Your task to perform on an android device: turn on showing notifications on the lock screen Image 0: 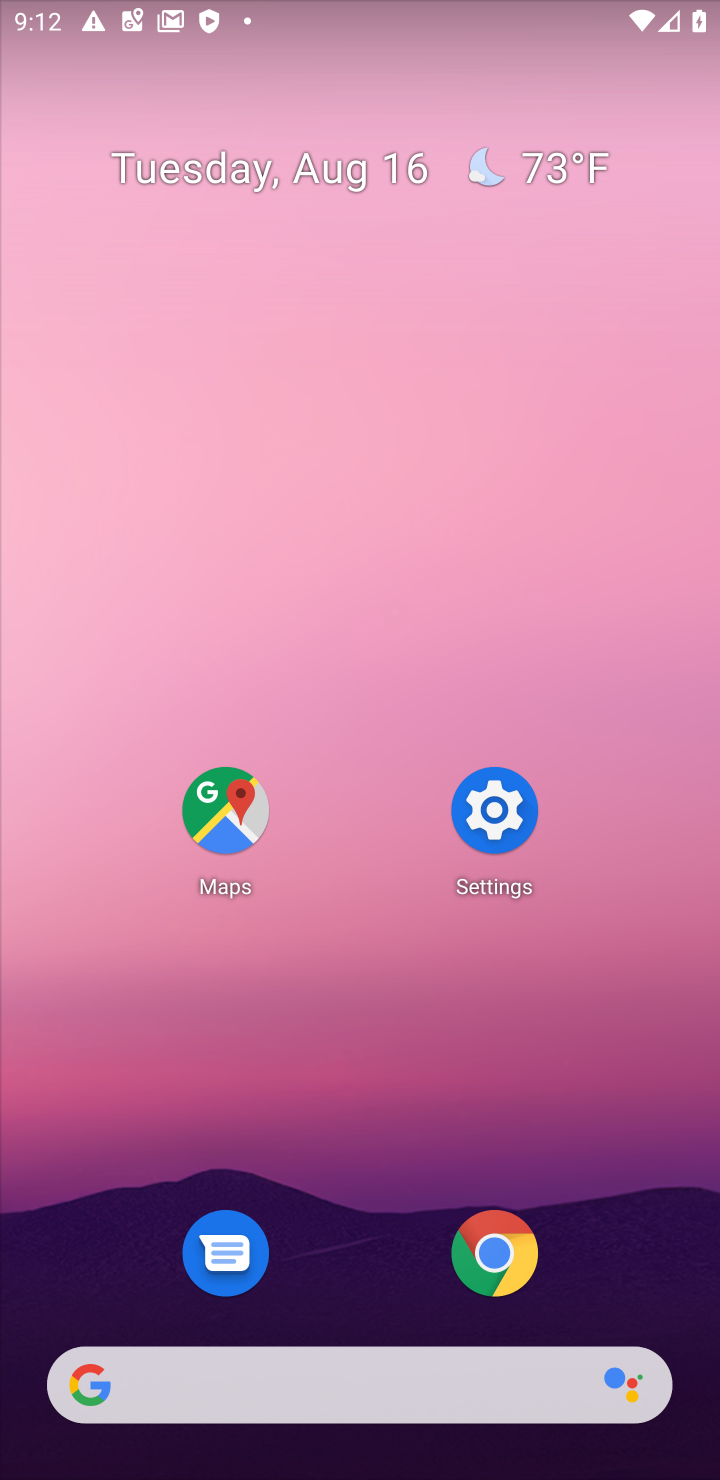
Step 0: click (484, 786)
Your task to perform on an android device: turn on showing notifications on the lock screen Image 1: 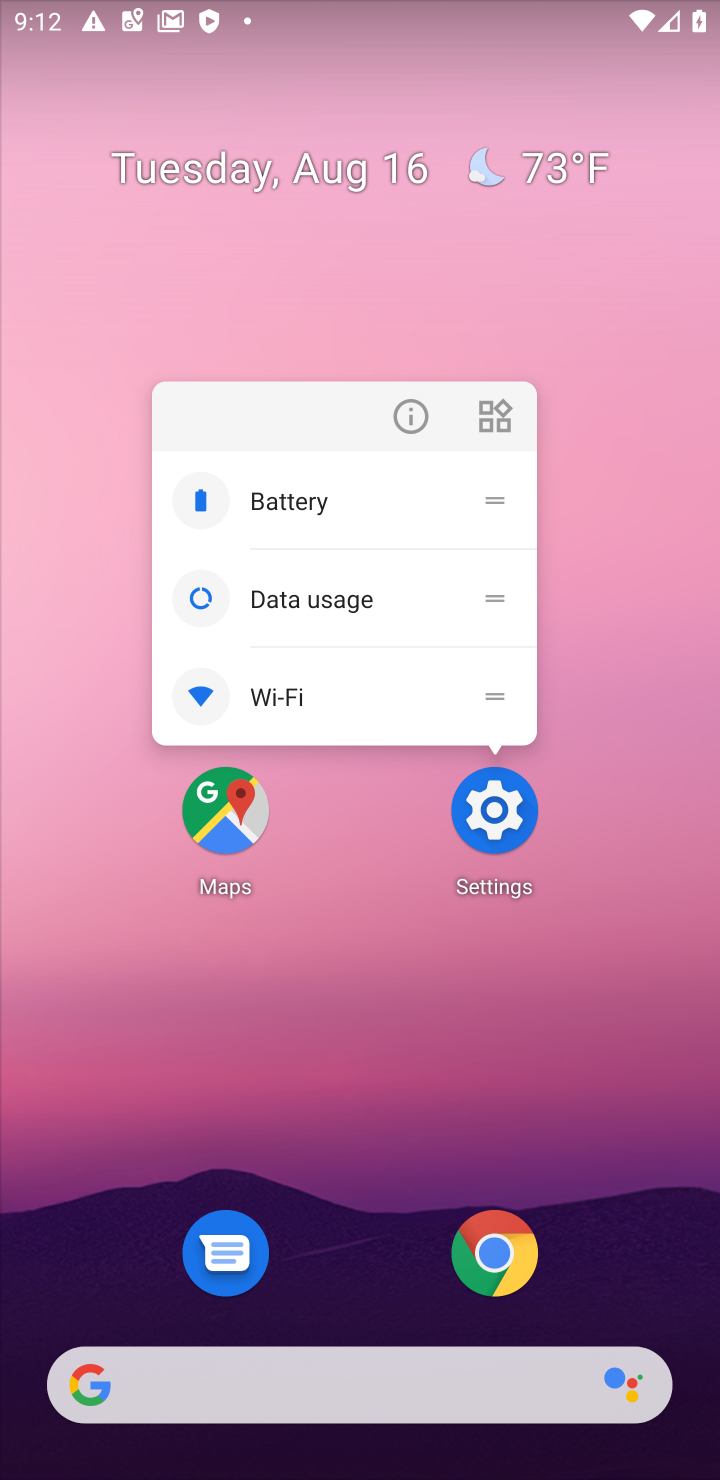
Step 1: click (496, 808)
Your task to perform on an android device: turn on showing notifications on the lock screen Image 2: 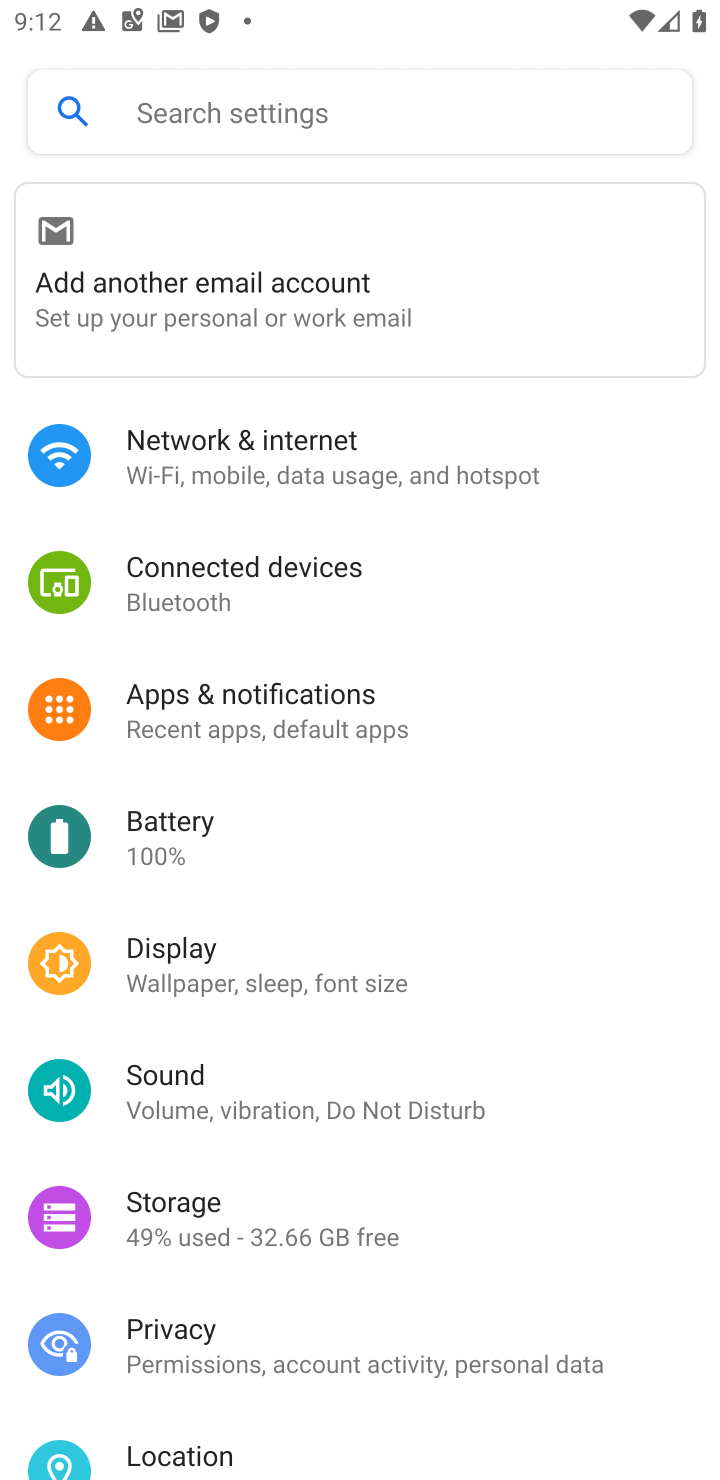
Step 2: click (259, 711)
Your task to perform on an android device: turn on showing notifications on the lock screen Image 3: 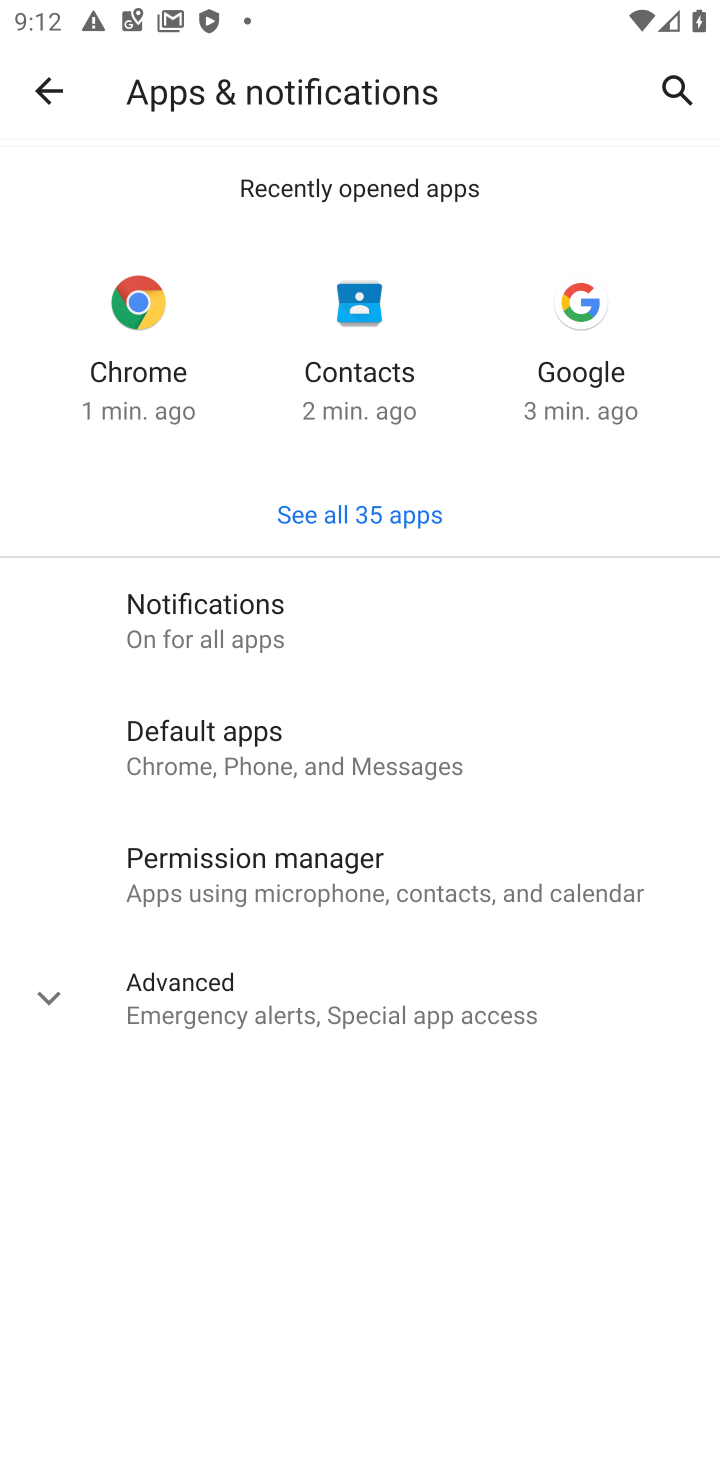
Step 3: click (208, 605)
Your task to perform on an android device: turn on showing notifications on the lock screen Image 4: 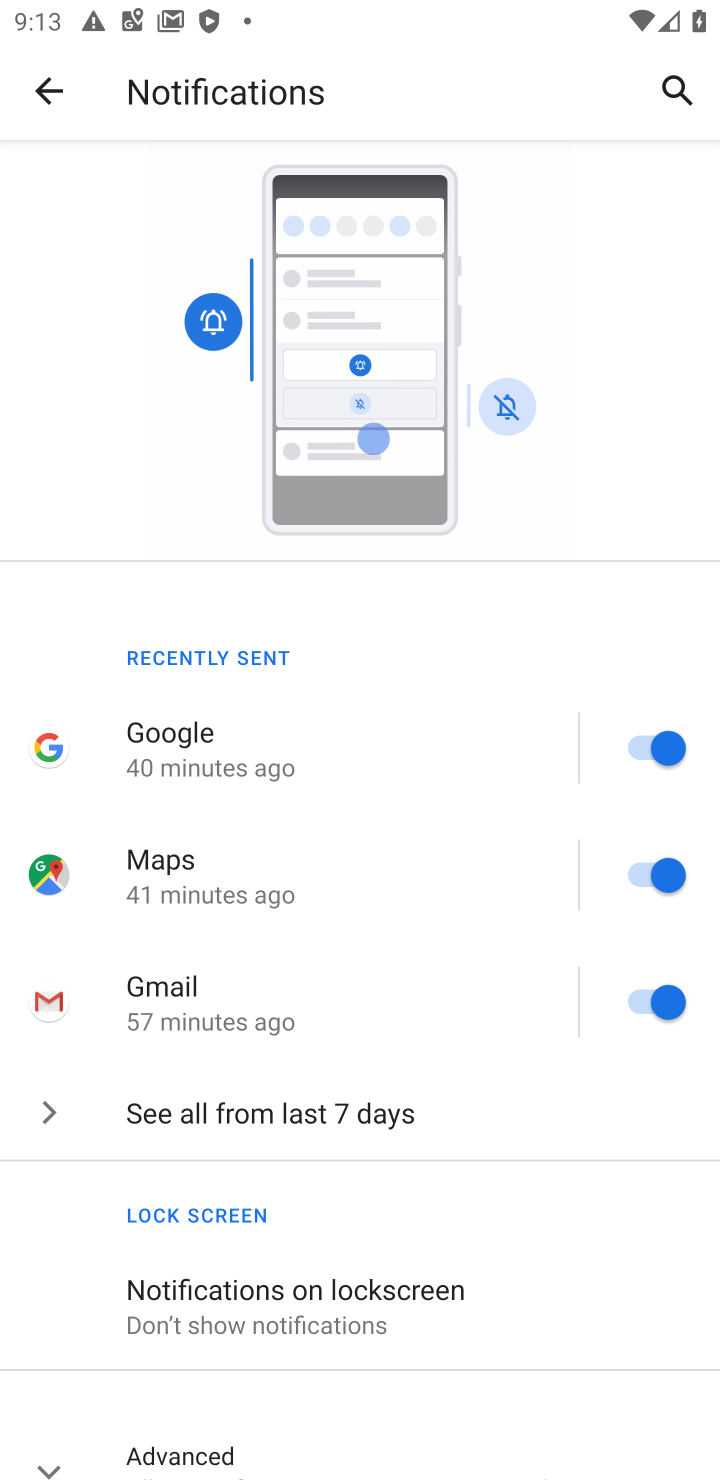
Step 4: click (324, 1292)
Your task to perform on an android device: turn on showing notifications on the lock screen Image 5: 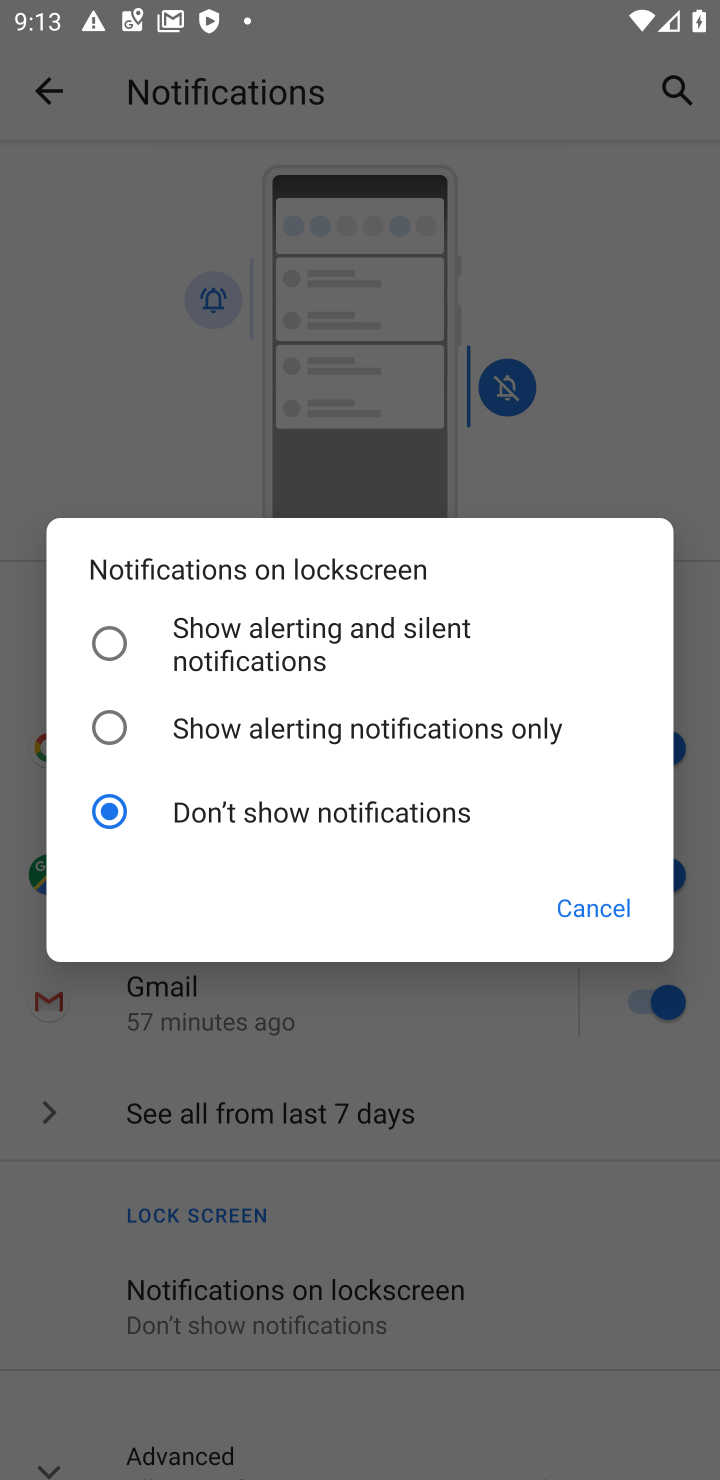
Step 5: click (107, 638)
Your task to perform on an android device: turn on showing notifications on the lock screen Image 6: 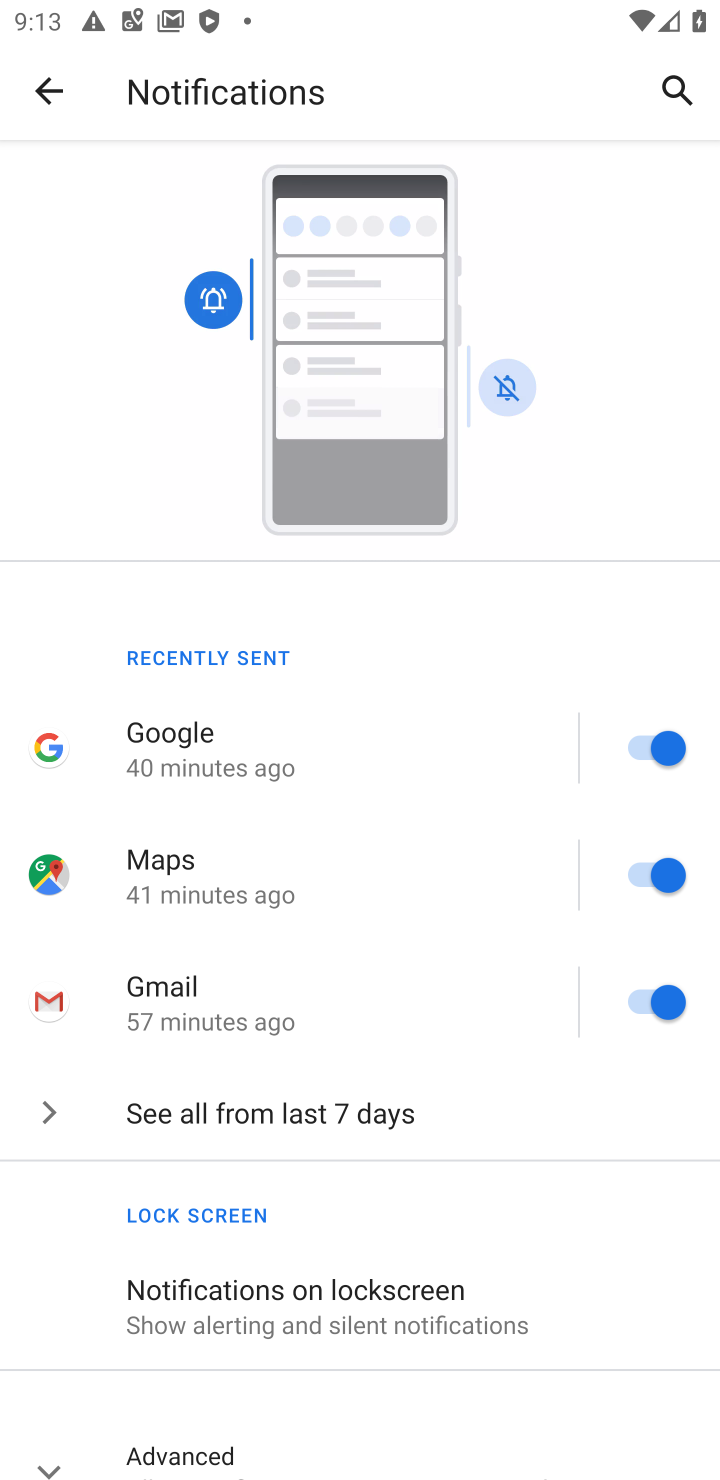
Step 6: task complete